Your task to perform on an android device: Open Android settings Image 0: 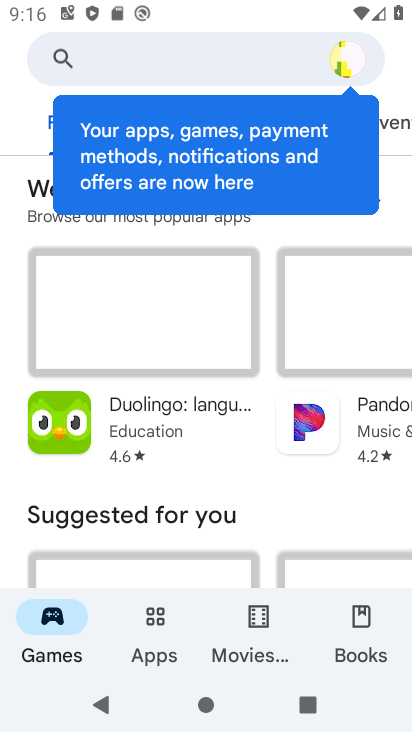
Step 0: press home button
Your task to perform on an android device: Open Android settings Image 1: 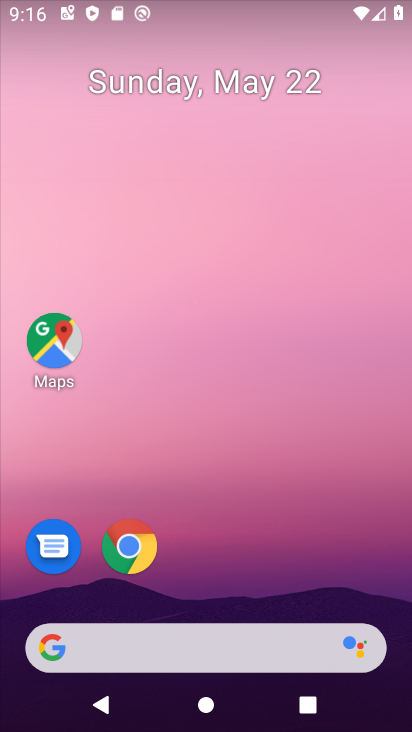
Step 1: drag from (162, 610) to (228, 68)
Your task to perform on an android device: Open Android settings Image 2: 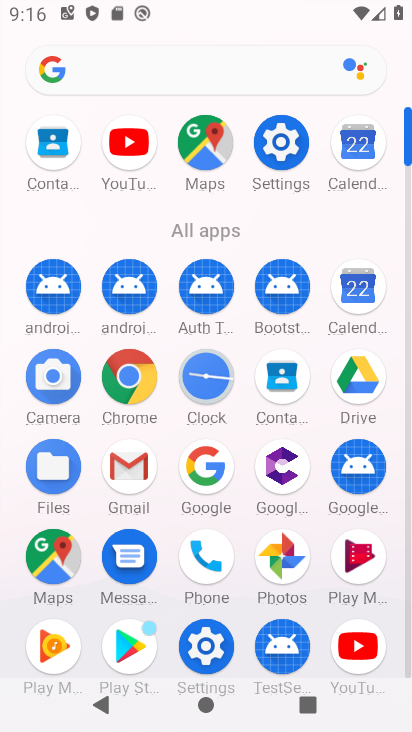
Step 2: click (286, 129)
Your task to perform on an android device: Open Android settings Image 3: 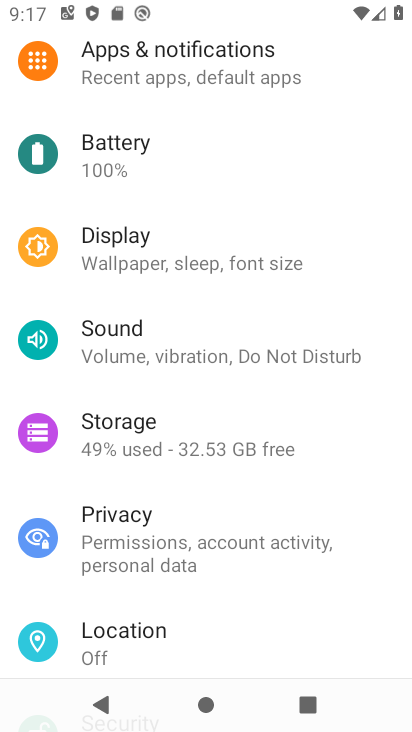
Step 3: drag from (195, 539) to (295, 15)
Your task to perform on an android device: Open Android settings Image 4: 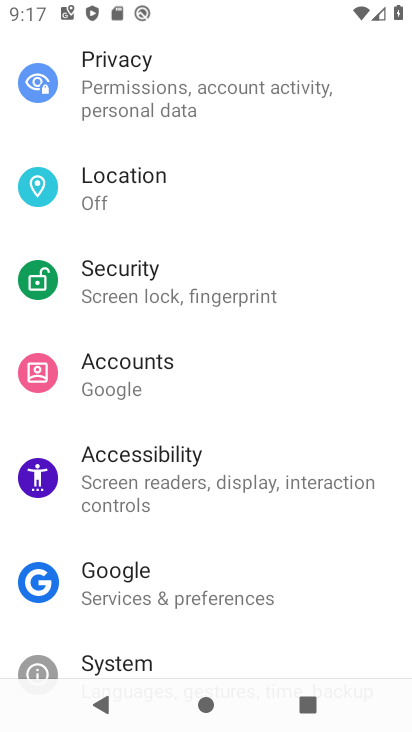
Step 4: drag from (236, 372) to (309, 15)
Your task to perform on an android device: Open Android settings Image 5: 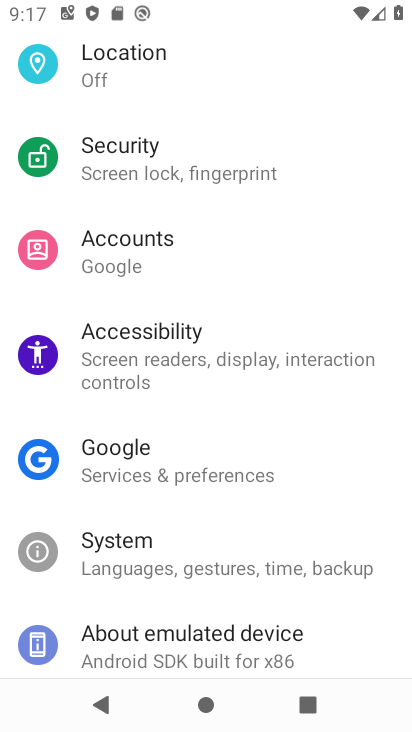
Step 5: click (158, 644)
Your task to perform on an android device: Open Android settings Image 6: 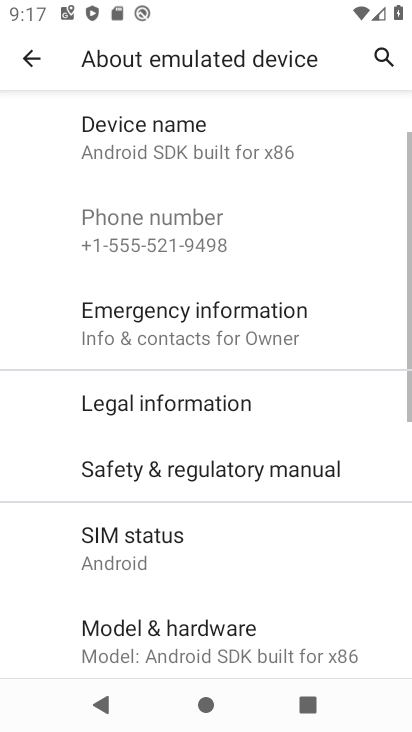
Step 6: drag from (152, 596) to (302, 27)
Your task to perform on an android device: Open Android settings Image 7: 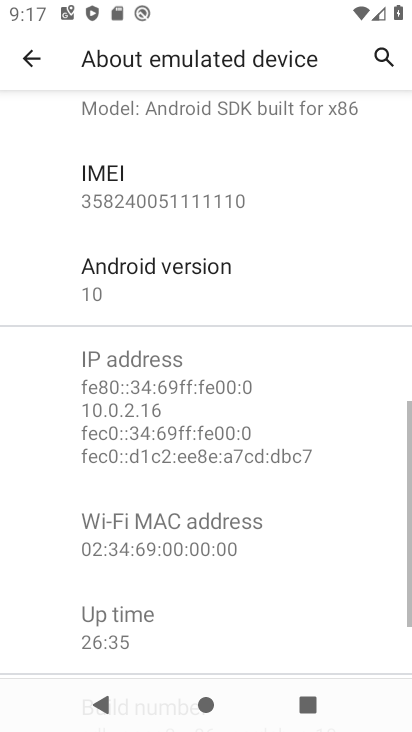
Step 7: click (110, 278)
Your task to perform on an android device: Open Android settings Image 8: 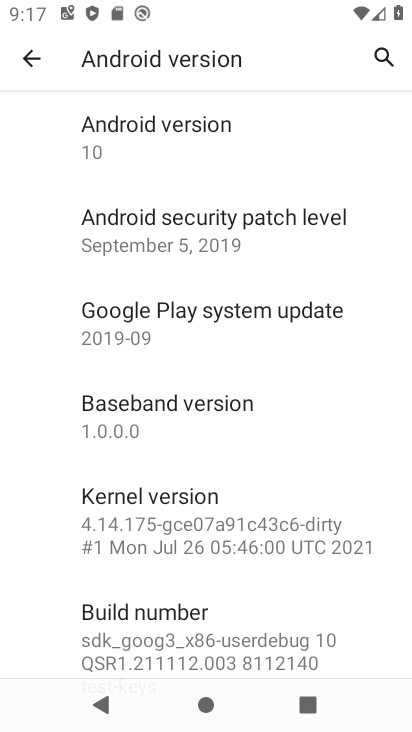
Step 8: task complete